Your task to perform on an android device: Open battery settings Image 0: 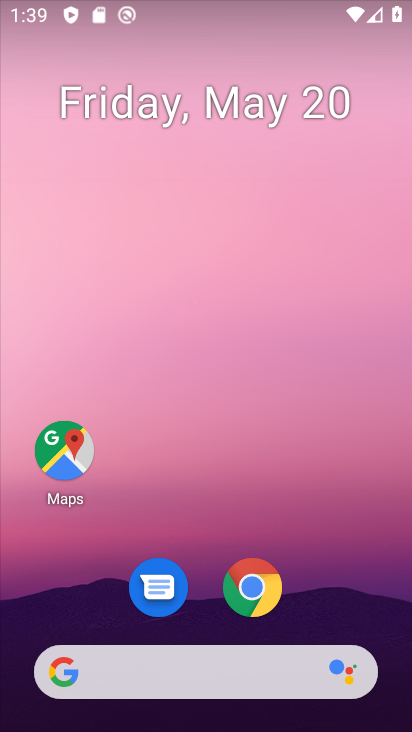
Step 0: drag from (365, 595) to (359, 47)
Your task to perform on an android device: Open battery settings Image 1: 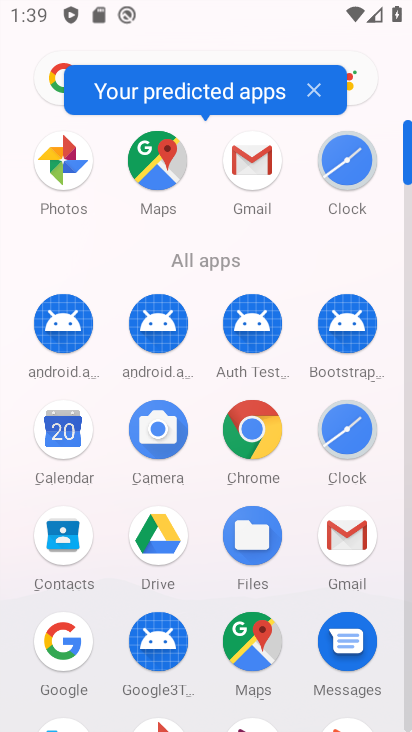
Step 1: click (406, 675)
Your task to perform on an android device: Open battery settings Image 2: 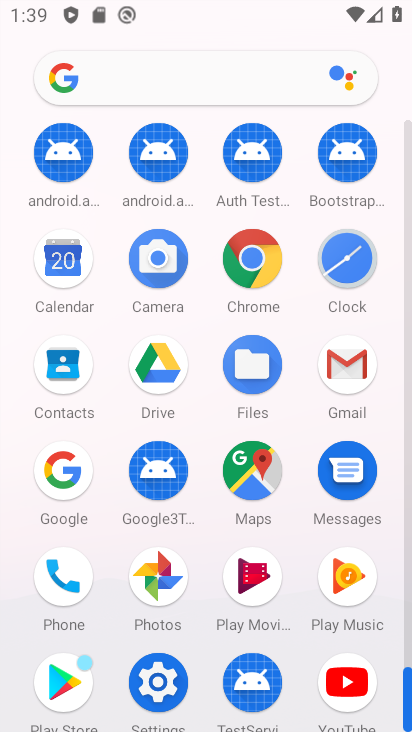
Step 2: click (161, 681)
Your task to perform on an android device: Open battery settings Image 3: 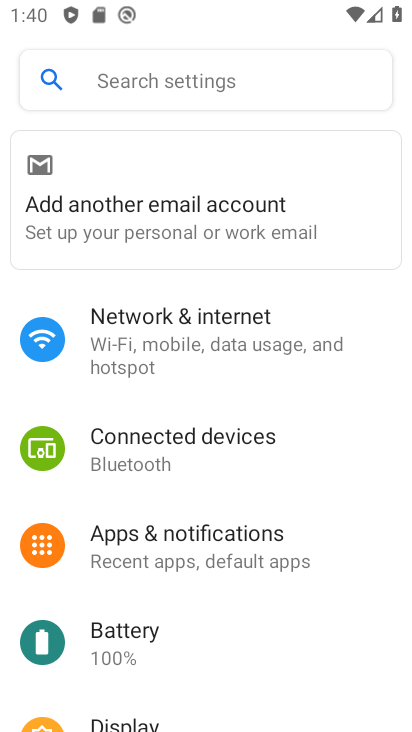
Step 3: drag from (302, 706) to (296, 363)
Your task to perform on an android device: Open battery settings Image 4: 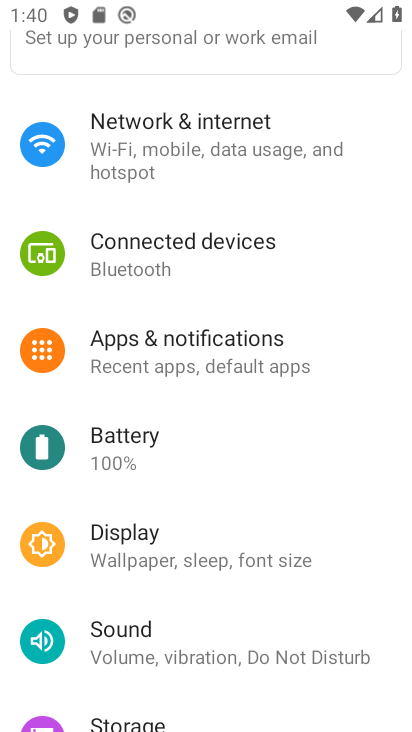
Step 4: click (237, 451)
Your task to perform on an android device: Open battery settings Image 5: 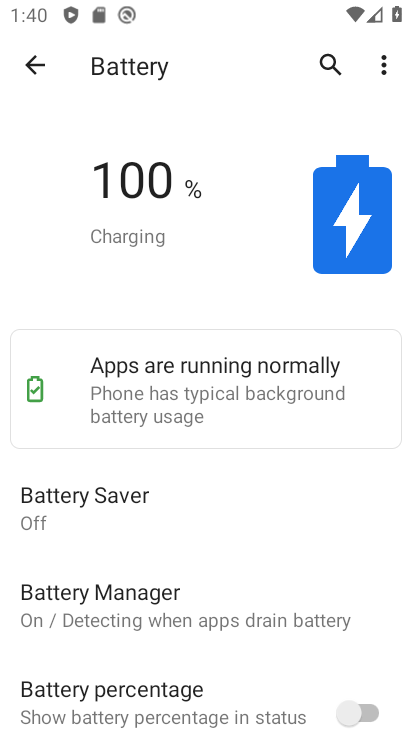
Step 5: task complete